Your task to perform on an android device: Open Yahoo.com Image 0: 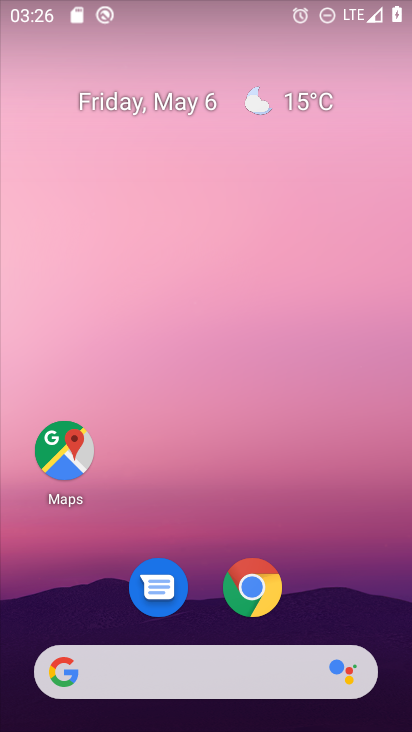
Step 0: click (257, 596)
Your task to perform on an android device: Open Yahoo.com Image 1: 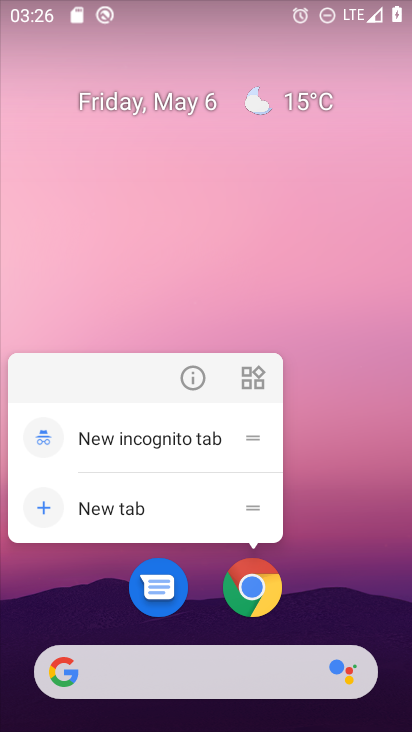
Step 1: click (259, 589)
Your task to perform on an android device: Open Yahoo.com Image 2: 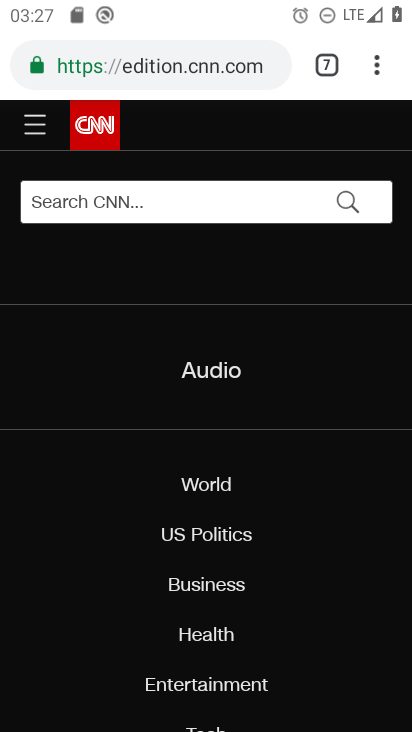
Step 2: click (327, 66)
Your task to perform on an android device: Open Yahoo.com Image 3: 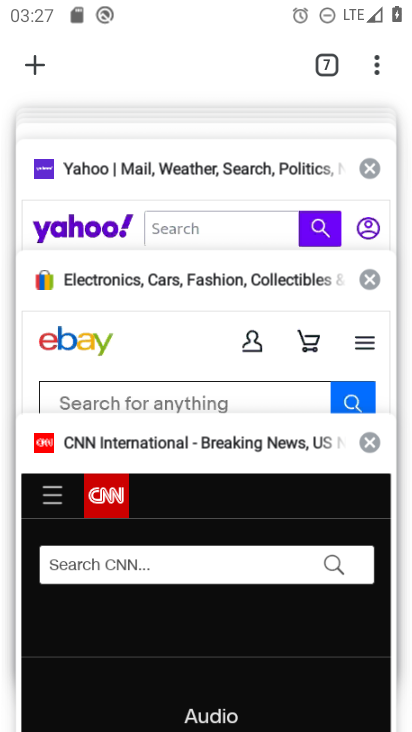
Step 3: click (31, 59)
Your task to perform on an android device: Open Yahoo.com Image 4: 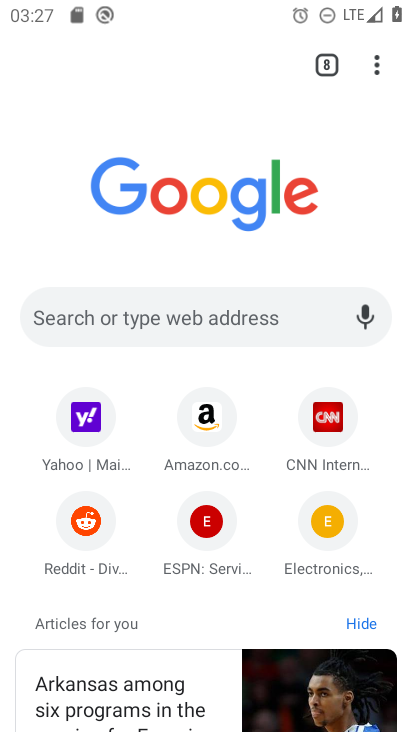
Step 4: click (201, 317)
Your task to perform on an android device: Open Yahoo.com Image 5: 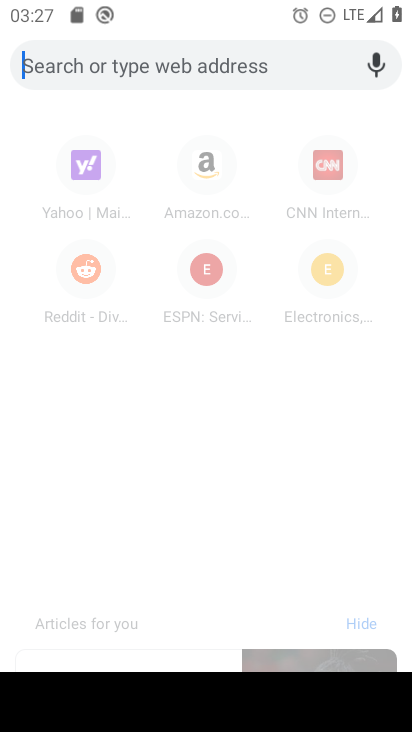
Step 5: type "yahoo.com"
Your task to perform on an android device: Open Yahoo.com Image 6: 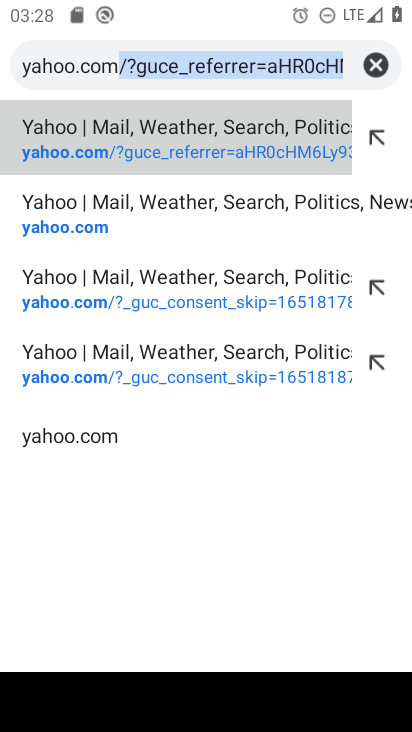
Step 6: click (67, 156)
Your task to perform on an android device: Open Yahoo.com Image 7: 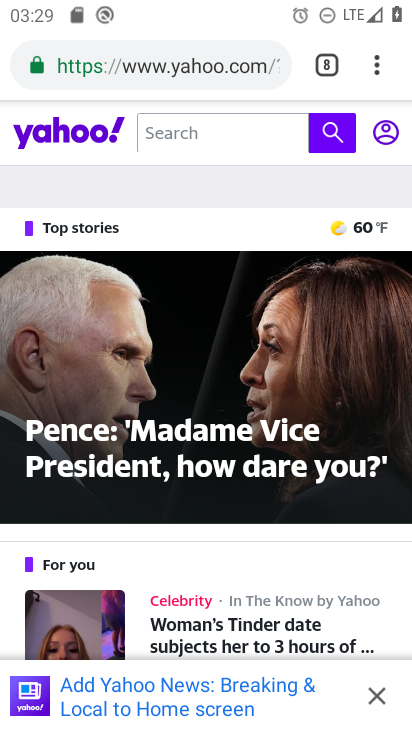
Step 7: task complete